Your task to perform on an android device: Open Google Image 0: 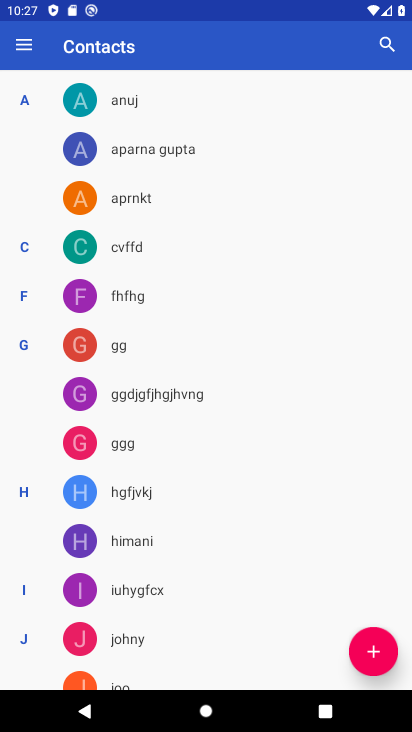
Step 0: press home button
Your task to perform on an android device: Open Google Image 1: 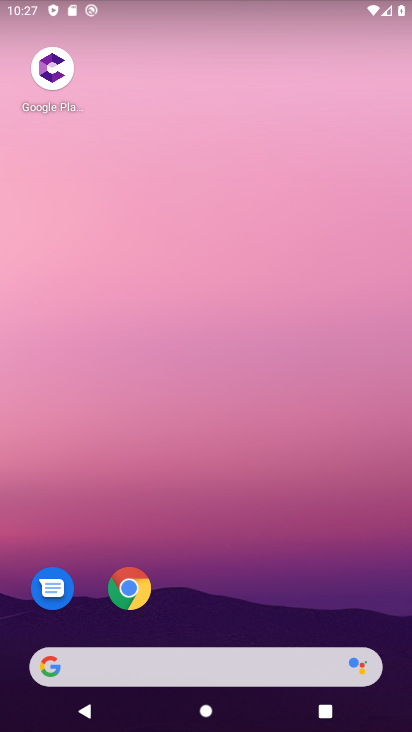
Step 1: drag from (301, 579) to (276, 62)
Your task to perform on an android device: Open Google Image 2: 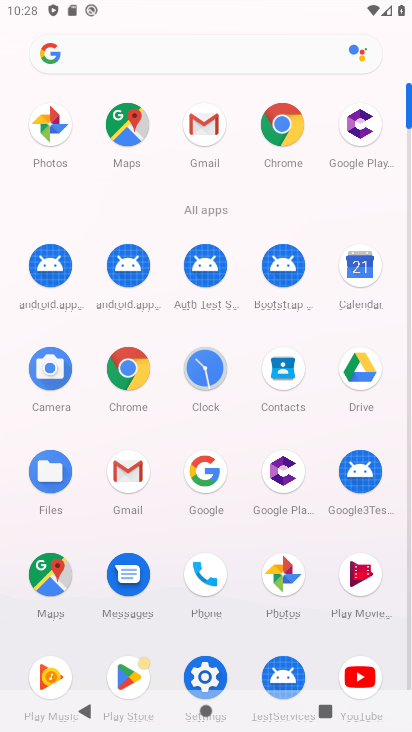
Step 2: click (199, 456)
Your task to perform on an android device: Open Google Image 3: 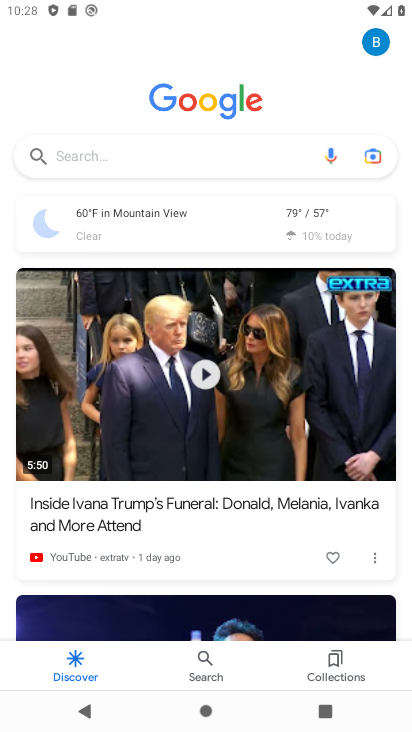
Step 3: task complete